Your task to perform on an android device: Go to privacy settings Image 0: 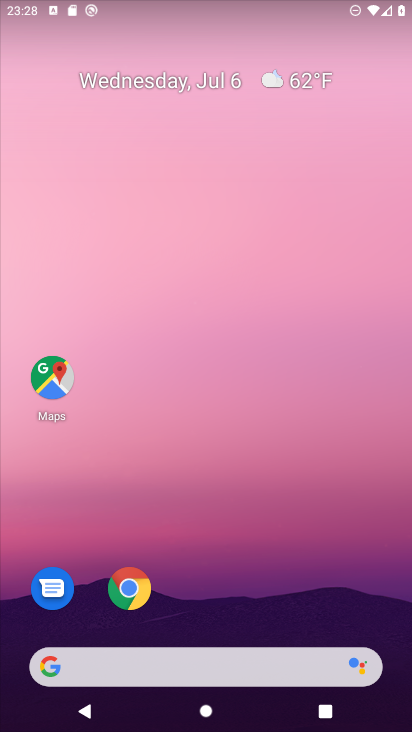
Step 0: drag from (357, 613) to (340, 112)
Your task to perform on an android device: Go to privacy settings Image 1: 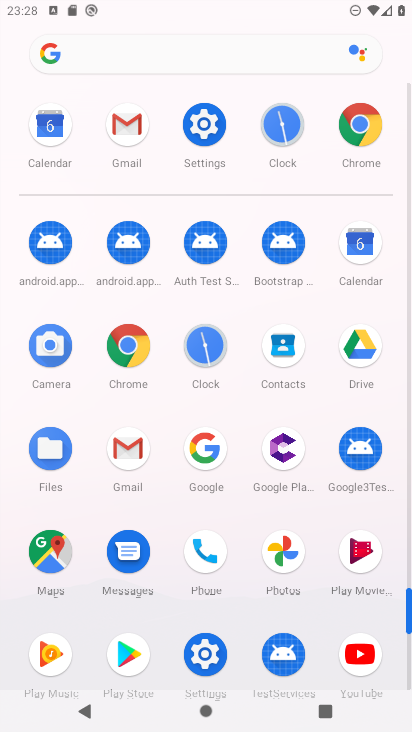
Step 1: click (205, 658)
Your task to perform on an android device: Go to privacy settings Image 2: 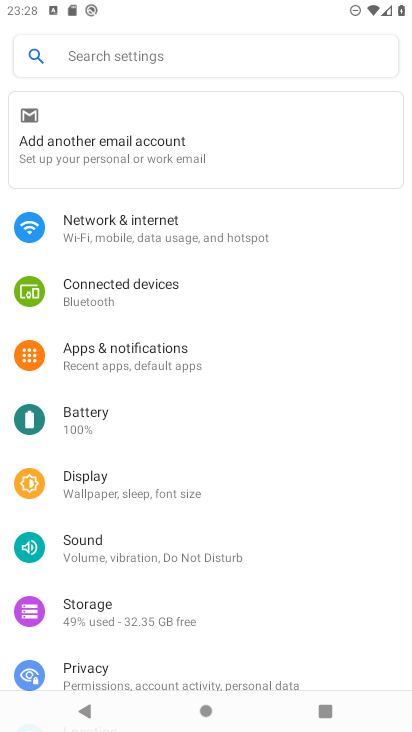
Step 2: drag from (286, 605) to (257, 293)
Your task to perform on an android device: Go to privacy settings Image 3: 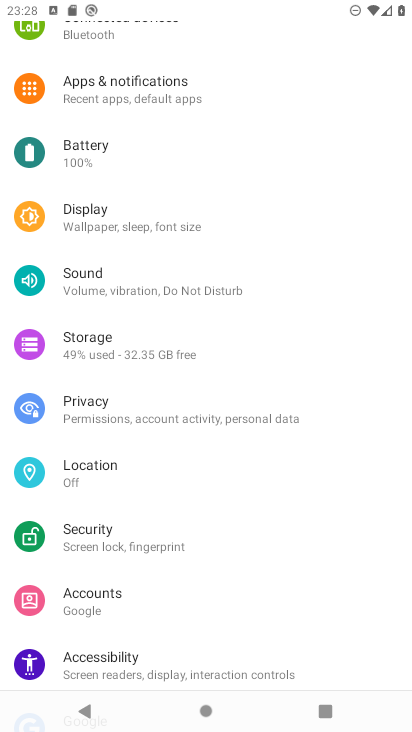
Step 3: click (80, 409)
Your task to perform on an android device: Go to privacy settings Image 4: 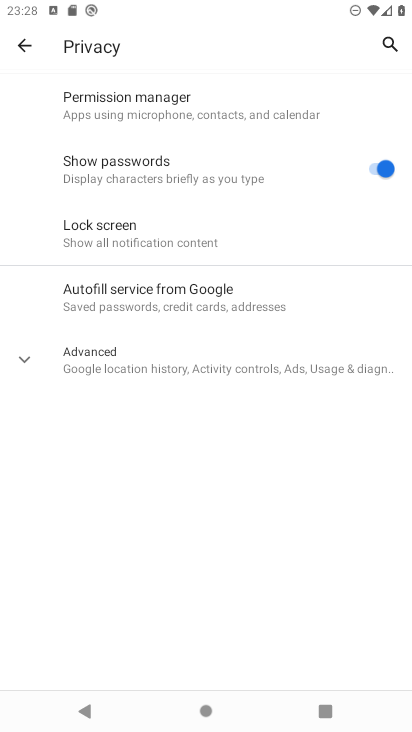
Step 4: click (23, 357)
Your task to perform on an android device: Go to privacy settings Image 5: 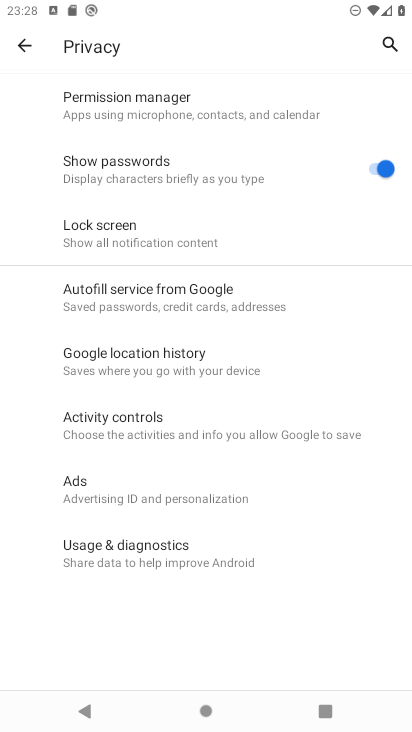
Step 5: task complete